Your task to perform on an android device: Search for vegetarian restaurants on Maps Image 0: 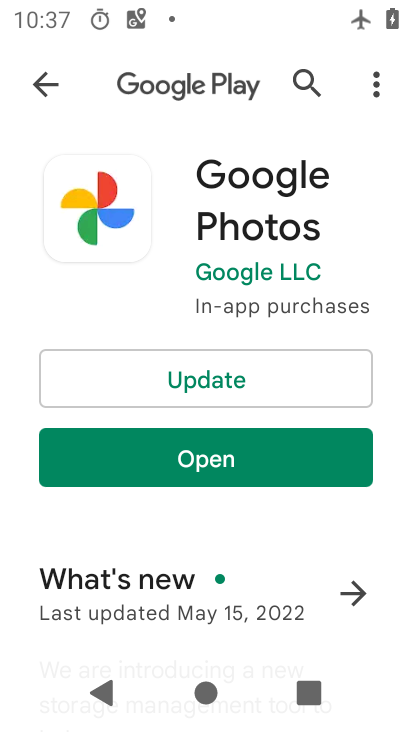
Step 0: press home button
Your task to perform on an android device: Search for vegetarian restaurants on Maps Image 1: 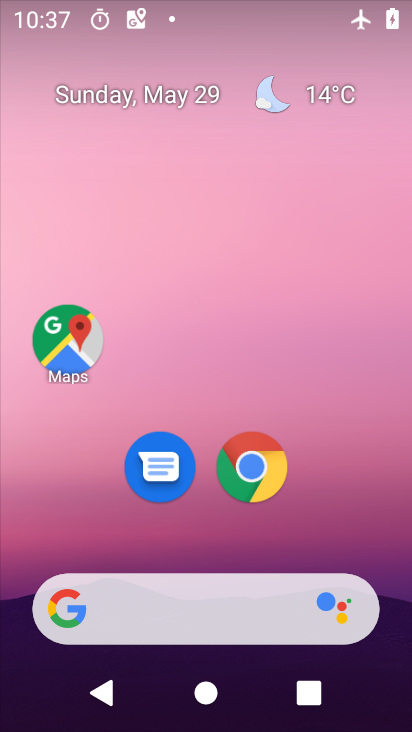
Step 1: click (94, 346)
Your task to perform on an android device: Search for vegetarian restaurants on Maps Image 2: 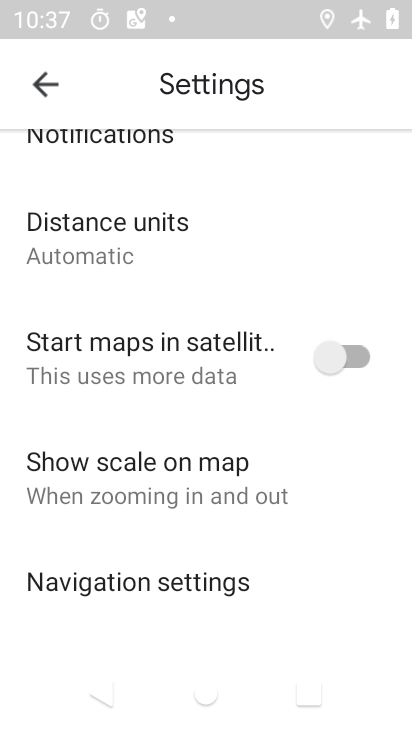
Step 2: click (36, 92)
Your task to perform on an android device: Search for vegetarian restaurants on Maps Image 3: 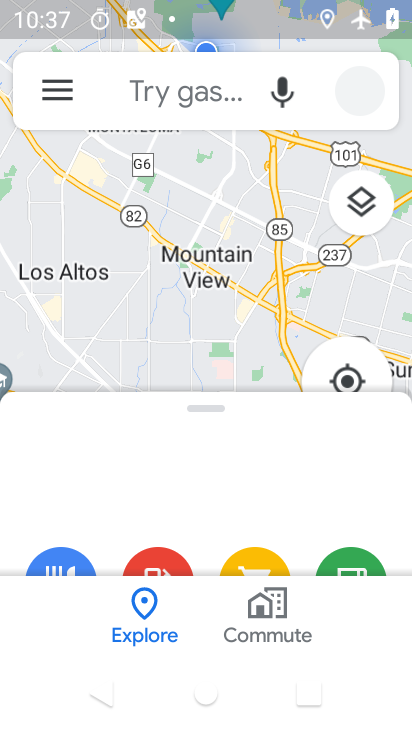
Step 3: click (54, 84)
Your task to perform on an android device: Search for vegetarian restaurants on Maps Image 4: 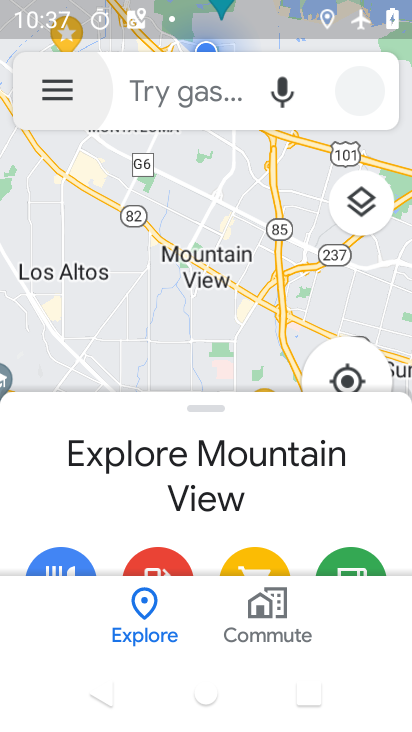
Step 4: click (182, 82)
Your task to perform on an android device: Search for vegetarian restaurants on Maps Image 5: 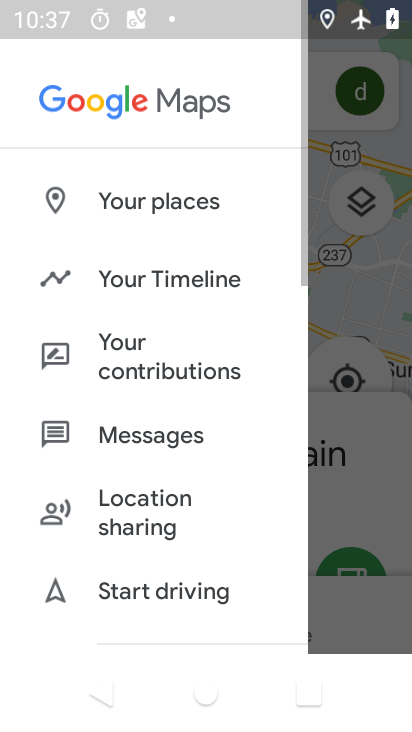
Step 5: click (331, 80)
Your task to perform on an android device: Search for vegetarian restaurants on Maps Image 6: 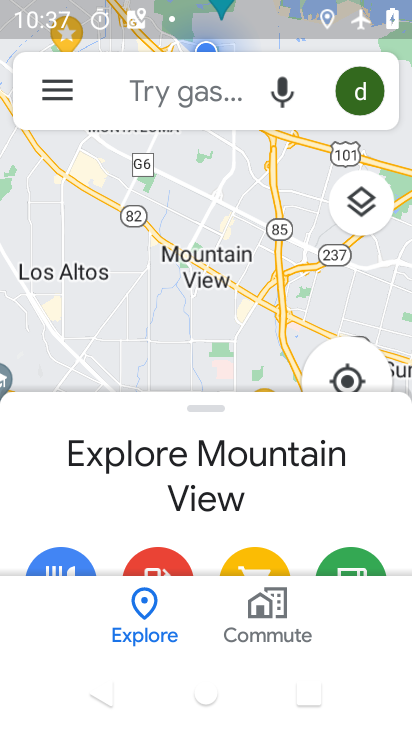
Step 6: click (338, 230)
Your task to perform on an android device: Search for vegetarian restaurants on Maps Image 7: 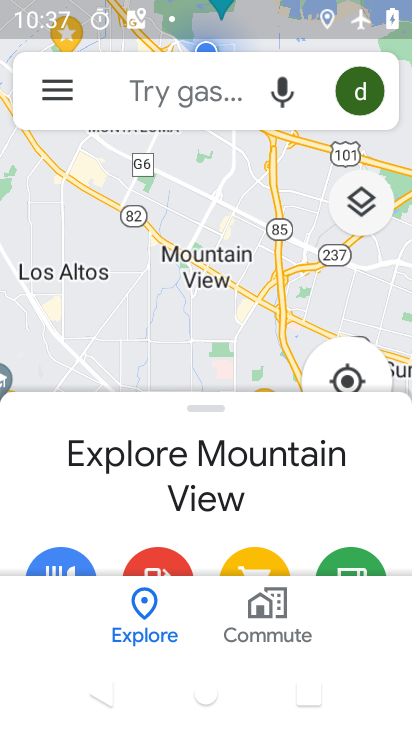
Step 7: click (178, 99)
Your task to perform on an android device: Search for vegetarian restaurants on Maps Image 8: 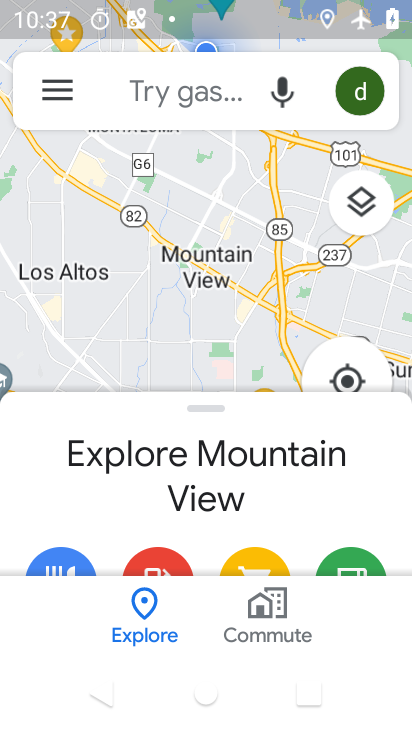
Step 8: click (176, 93)
Your task to perform on an android device: Search for vegetarian restaurants on Maps Image 9: 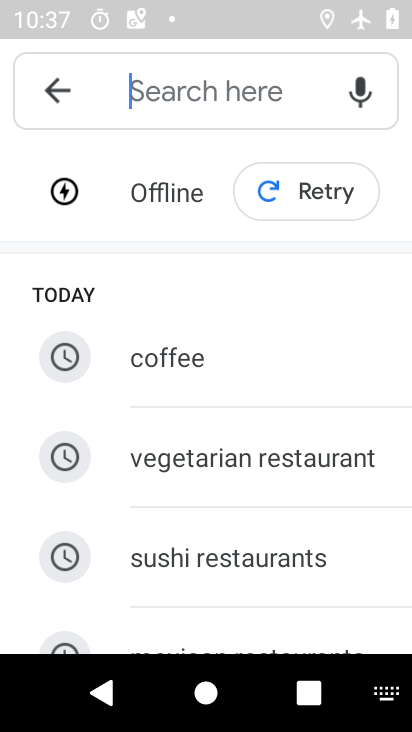
Step 9: click (184, 464)
Your task to perform on an android device: Search for vegetarian restaurants on Maps Image 10: 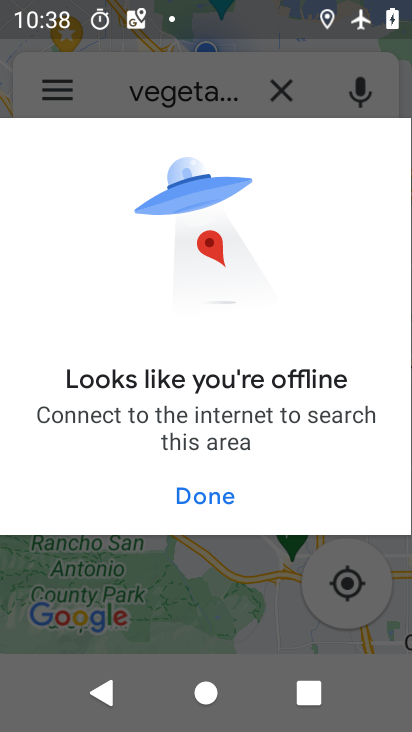
Step 10: task complete